Your task to perform on an android device: Open settings Image 0: 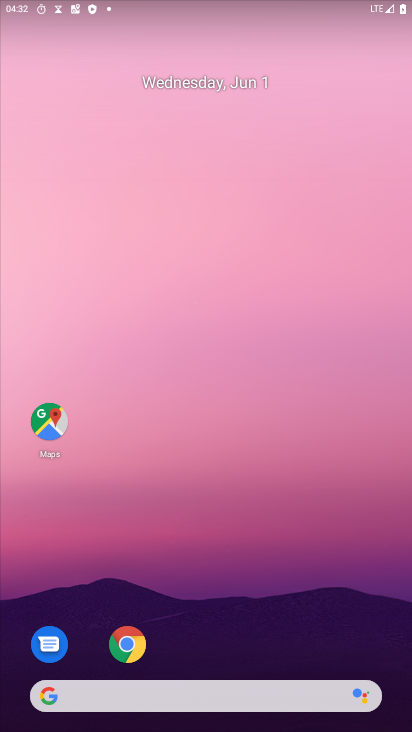
Step 0: press home button
Your task to perform on an android device: Open settings Image 1: 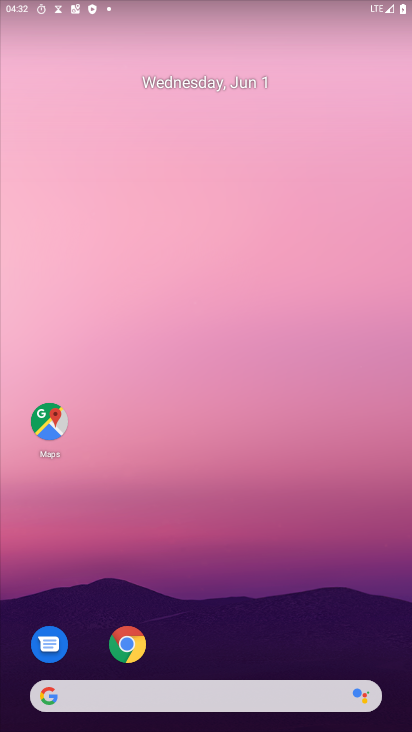
Step 1: drag from (279, 631) to (245, 370)
Your task to perform on an android device: Open settings Image 2: 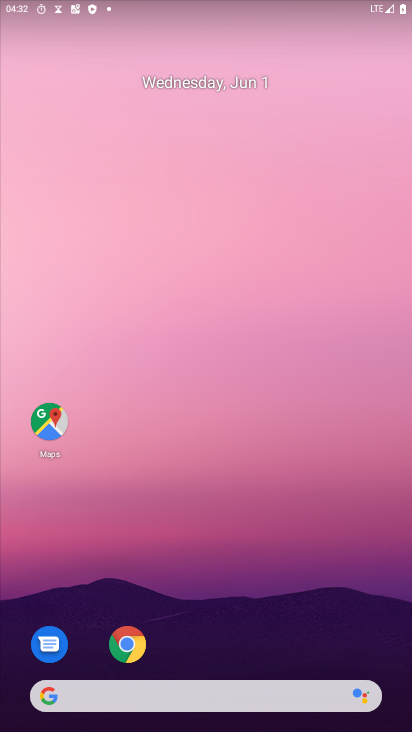
Step 2: drag from (268, 617) to (263, 152)
Your task to perform on an android device: Open settings Image 3: 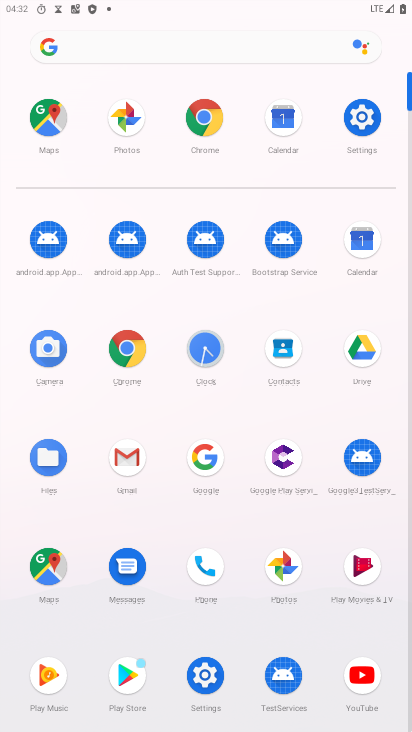
Step 3: click (362, 118)
Your task to perform on an android device: Open settings Image 4: 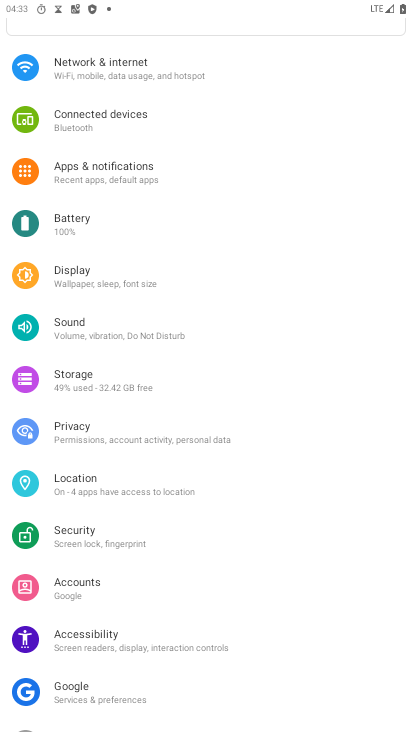
Step 4: task complete